Your task to perform on an android device: Open Youtube and go to "Your channel" Image 0: 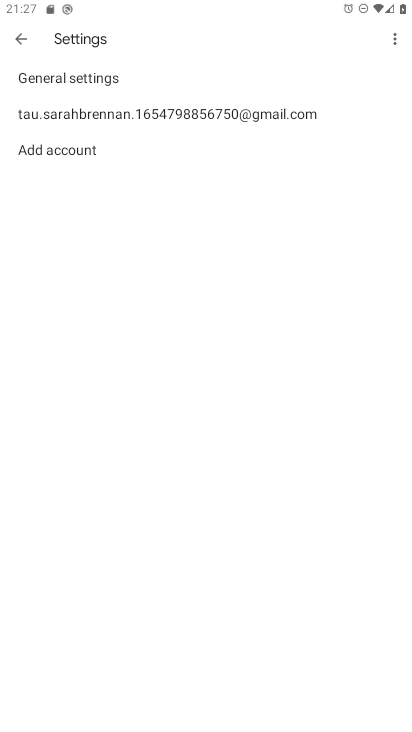
Step 0: press home button
Your task to perform on an android device: Open Youtube and go to "Your channel" Image 1: 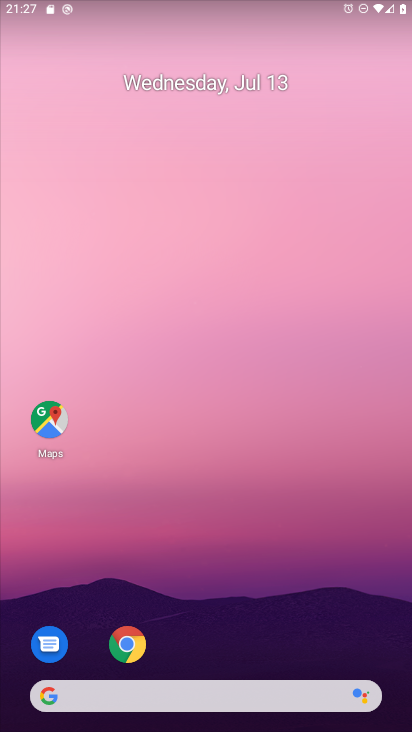
Step 1: drag from (279, 612) to (294, 118)
Your task to perform on an android device: Open Youtube and go to "Your channel" Image 2: 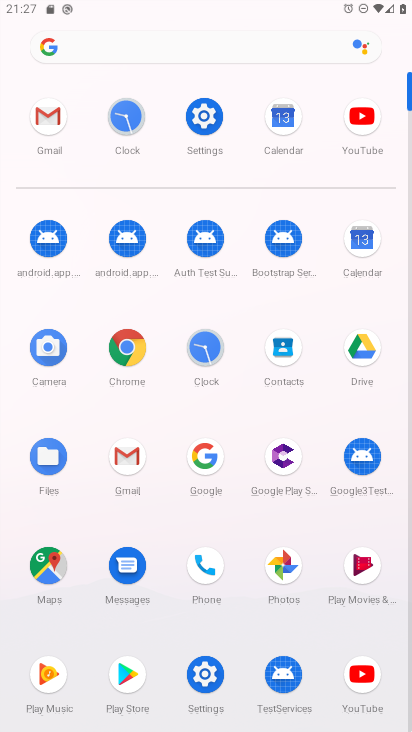
Step 2: click (365, 668)
Your task to perform on an android device: Open Youtube and go to "Your channel" Image 3: 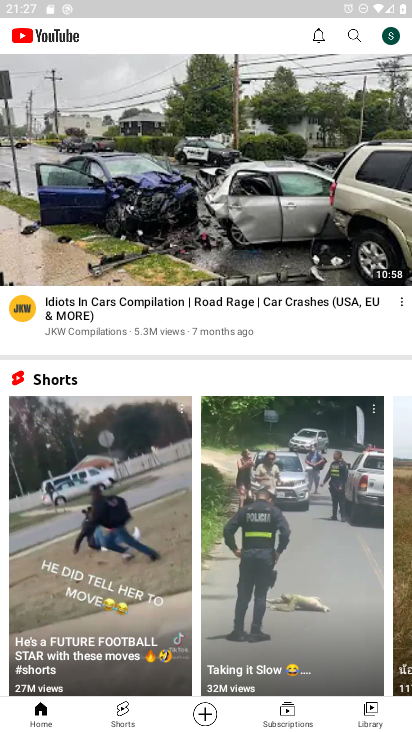
Step 3: click (391, 38)
Your task to perform on an android device: Open Youtube and go to "Your channel" Image 4: 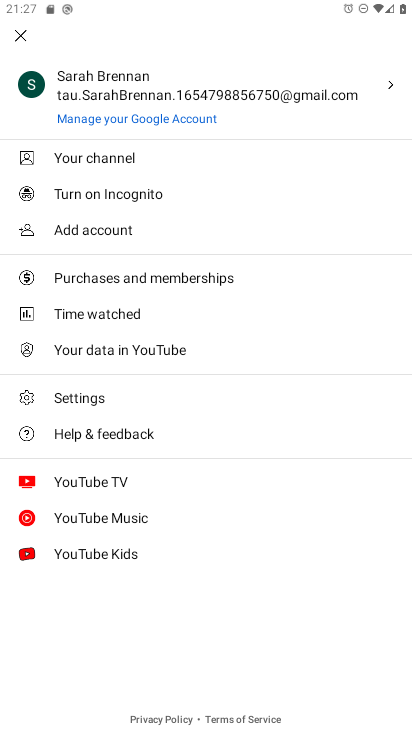
Step 4: click (104, 152)
Your task to perform on an android device: Open Youtube and go to "Your channel" Image 5: 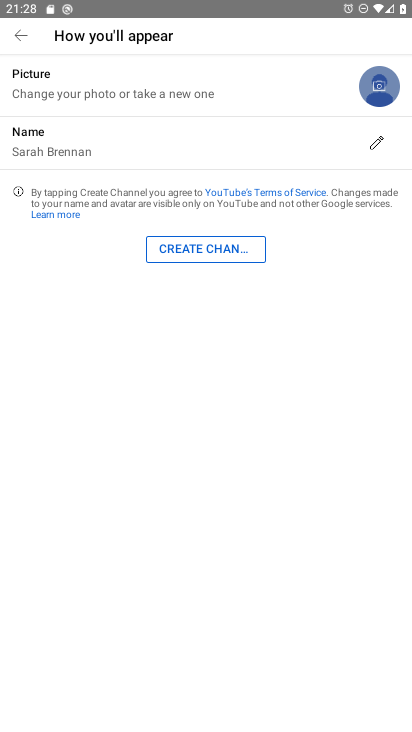
Step 5: task complete